Your task to perform on an android device: Search for Mexican restaurants on Maps Image 0: 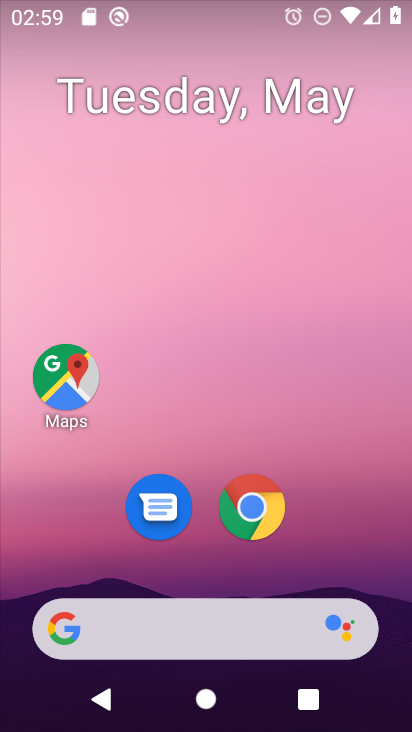
Step 0: click (53, 376)
Your task to perform on an android device: Search for Mexican restaurants on Maps Image 1: 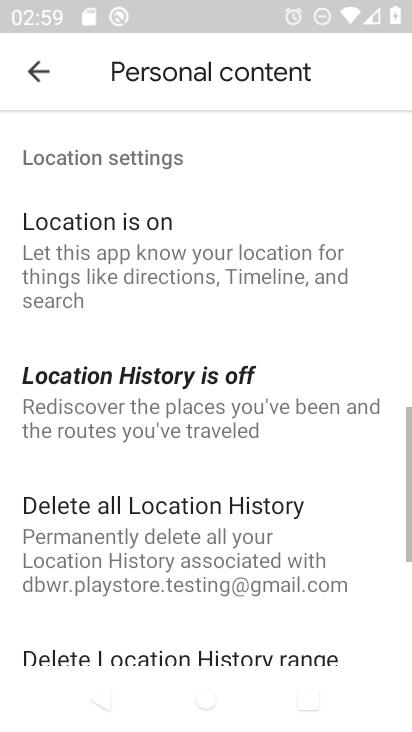
Step 1: click (43, 66)
Your task to perform on an android device: Search for Mexican restaurants on Maps Image 2: 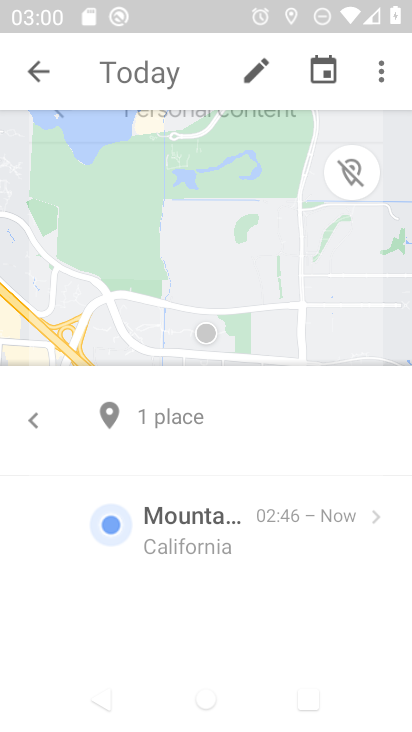
Step 2: click (41, 67)
Your task to perform on an android device: Search for Mexican restaurants on Maps Image 3: 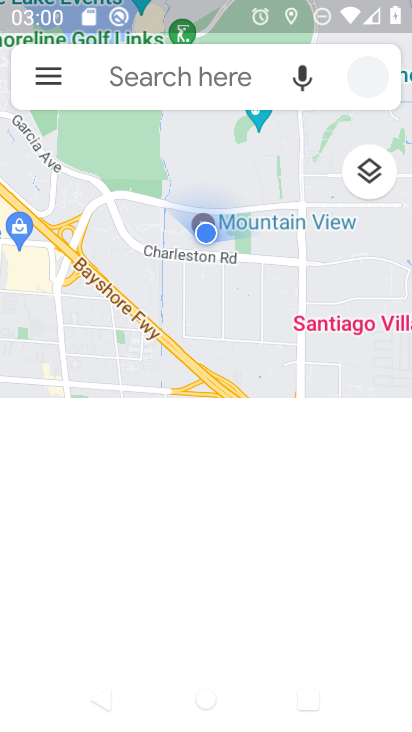
Step 3: click (133, 73)
Your task to perform on an android device: Search for Mexican restaurants on Maps Image 4: 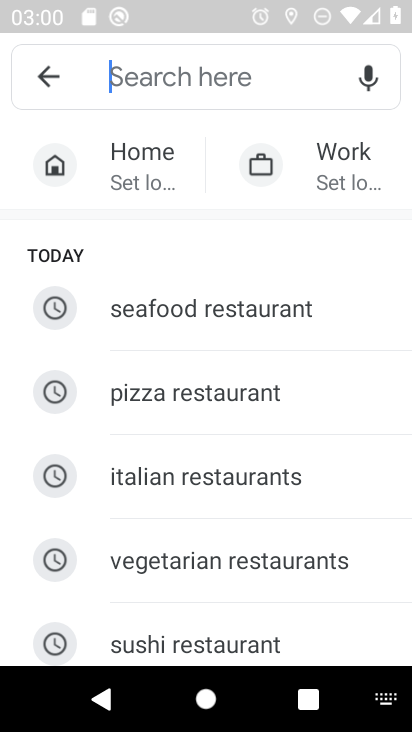
Step 4: type "Mexican restaurants"
Your task to perform on an android device: Search for Mexican restaurants on Maps Image 5: 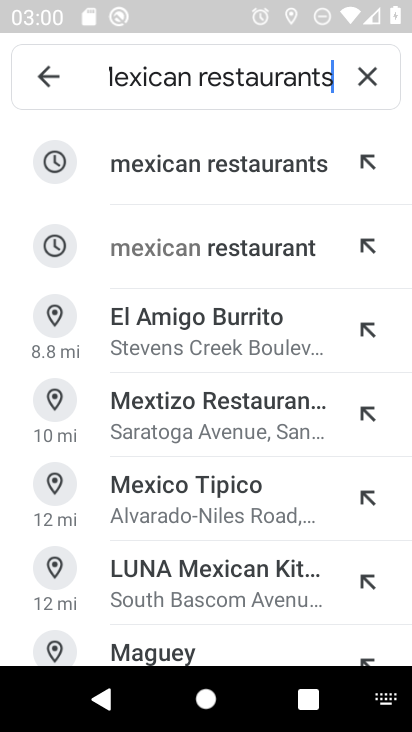
Step 5: click (209, 155)
Your task to perform on an android device: Search for Mexican restaurants on Maps Image 6: 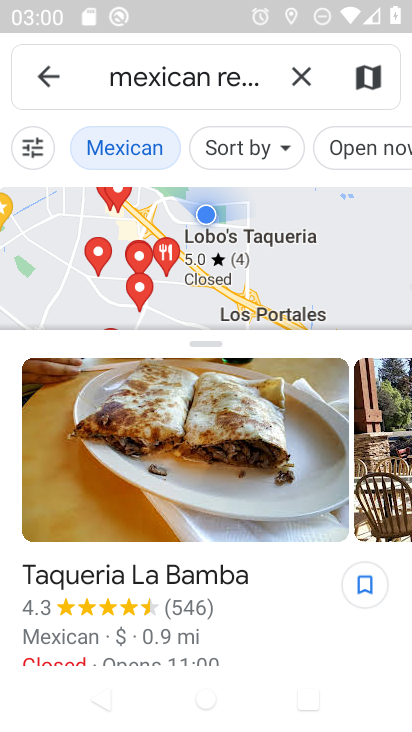
Step 6: task complete